Your task to perform on an android device: toggle sleep mode Image 0: 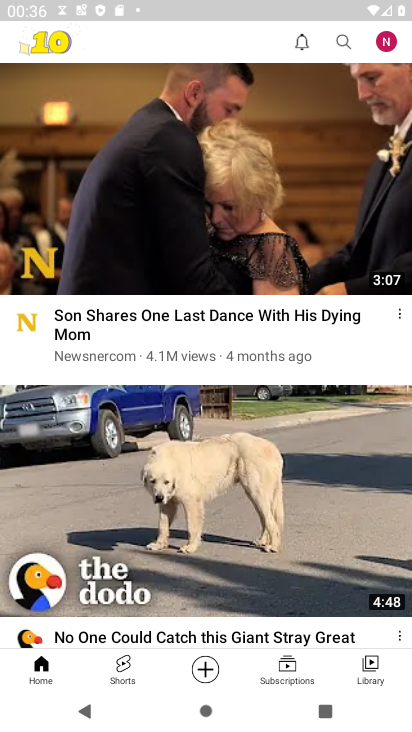
Step 0: press back button
Your task to perform on an android device: toggle sleep mode Image 1: 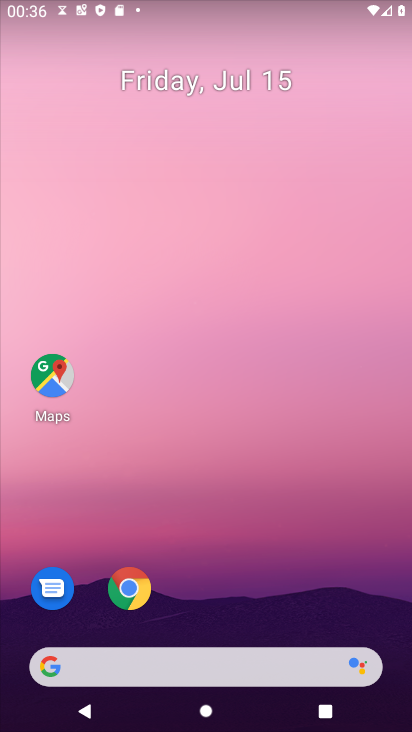
Step 1: drag from (184, 611) to (248, 32)
Your task to perform on an android device: toggle sleep mode Image 2: 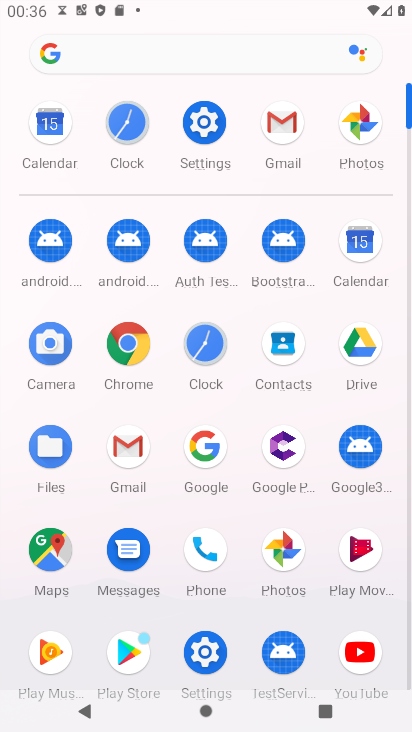
Step 2: click (203, 125)
Your task to perform on an android device: toggle sleep mode Image 3: 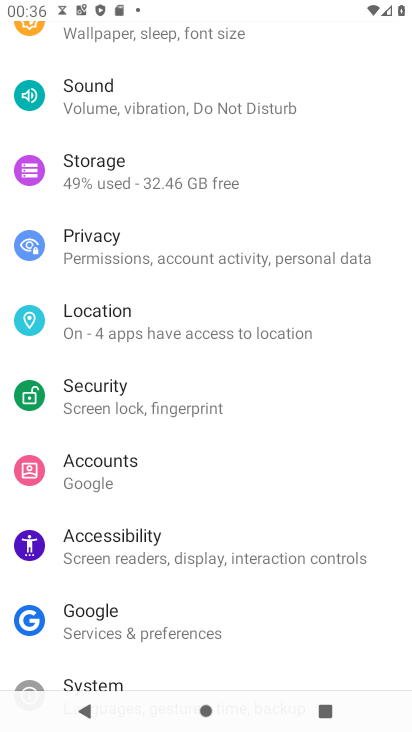
Step 3: drag from (180, 102) to (179, 645)
Your task to perform on an android device: toggle sleep mode Image 4: 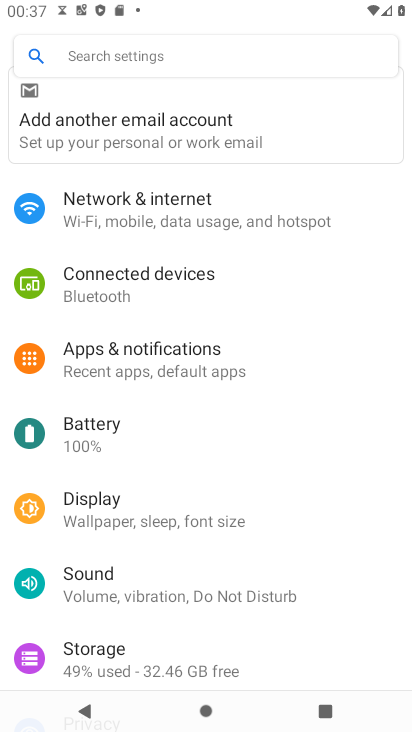
Step 4: click (173, 52)
Your task to perform on an android device: toggle sleep mode Image 5: 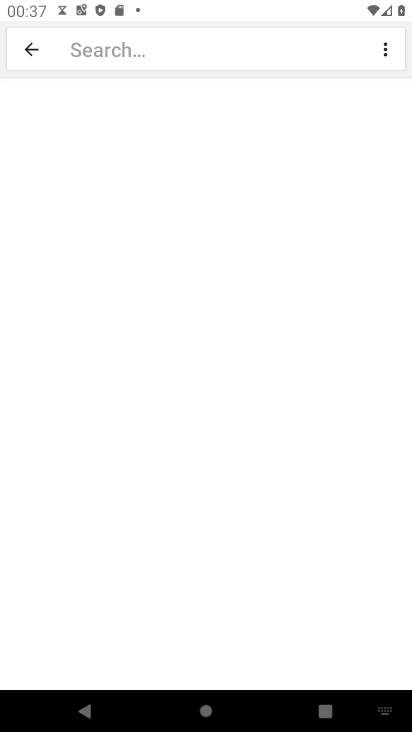
Step 5: type "sleep mode"
Your task to perform on an android device: toggle sleep mode Image 6: 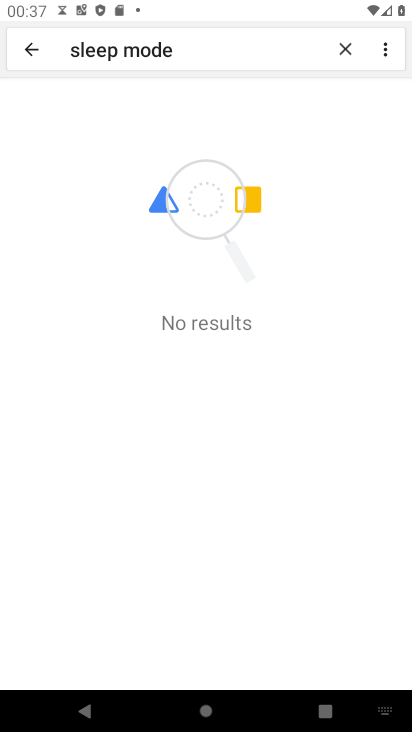
Step 6: task complete